Your task to perform on an android device: toggle pop-ups in chrome Image 0: 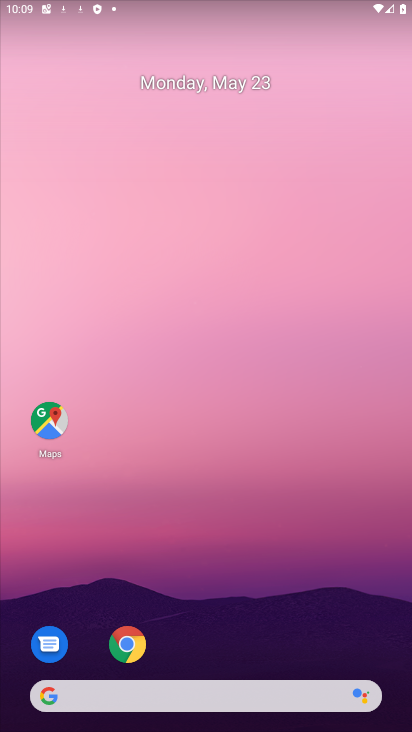
Step 0: press home button
Your task to perform on an android device: toggle pop-ups in chrome Image 1: 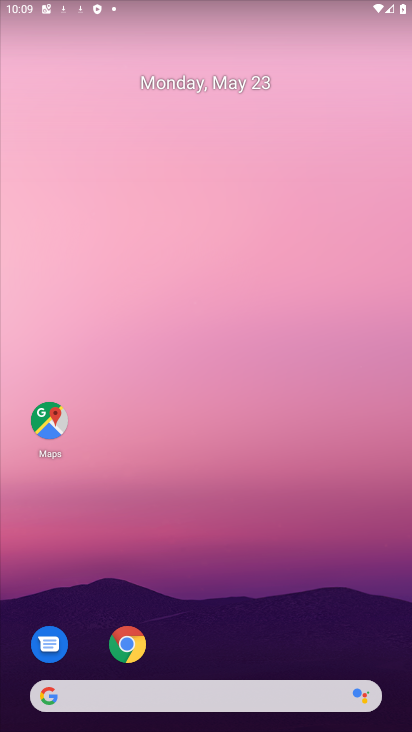
Step 1: drag from (268, 715) to (200, 188)
Your task to perform on an android device: toggle pop-ups in chrome Image 2: 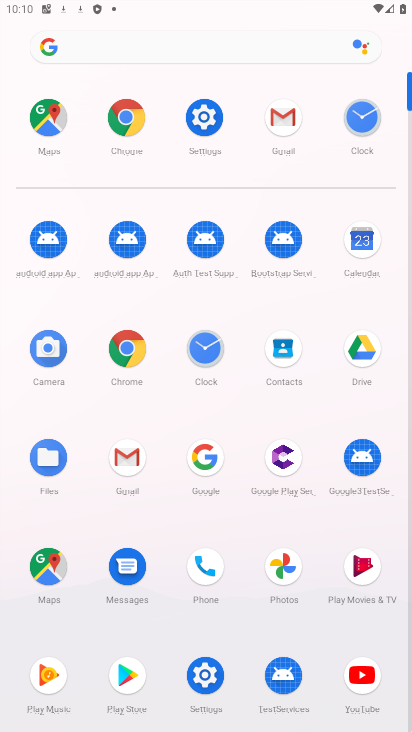
Step 2: click (128, 123)
Your task to perform on an android device: toggle pop-ups in chrome Image 3: 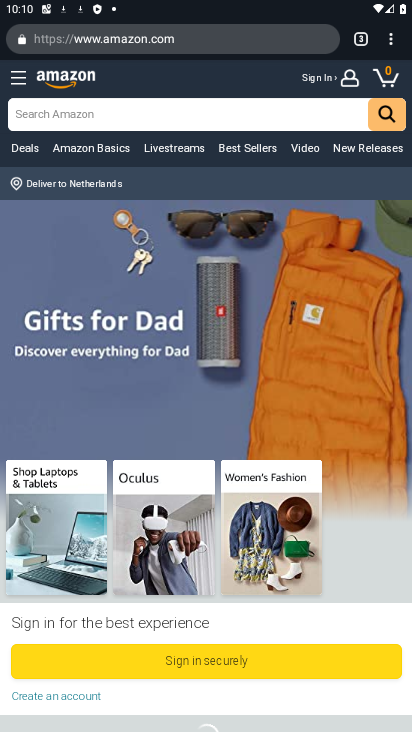
Step 3: click (385, 42)
Your task to perform on an android device: toggle pop-ups in chrome Image 4: 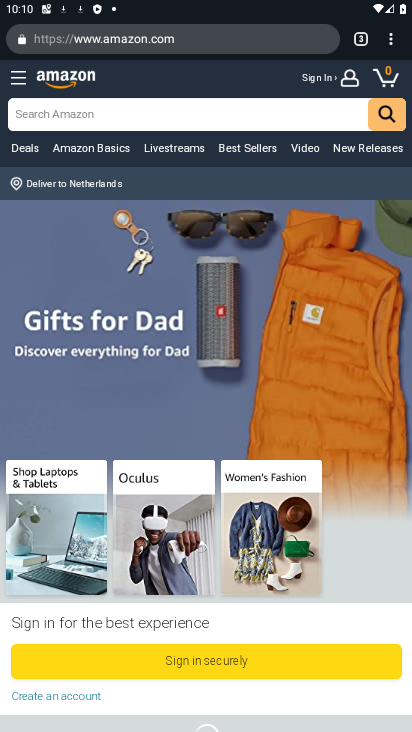
Step 4: click (391, 46)
Your task to perform on an android device: toggle pop-ups in chrome Image 5: 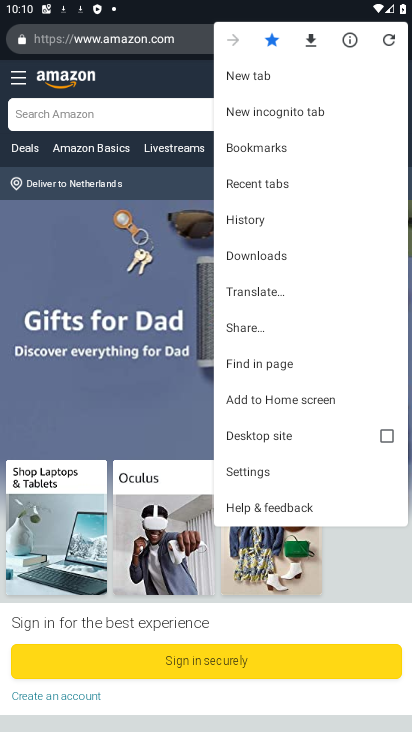
Step 5: click (245, 470)
Your task to perform on an android device: toggle pop-ups in chrome Image 6: 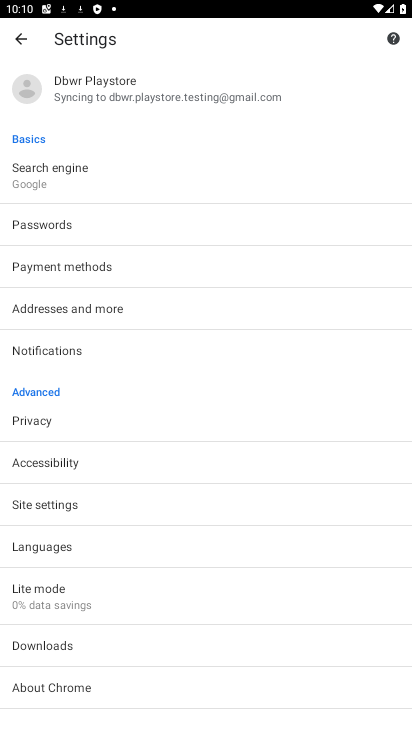
Step 6: click (77, 504)
Your task to perform on an android device: toggle pop-ups in chrome Image 7: 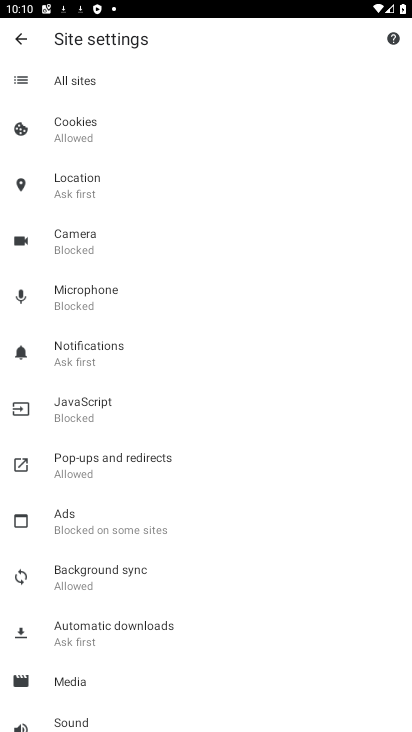
Step 7: click (107, 461)
Your task to perform on an android device: toggle pop-ups in chrome Image 8: 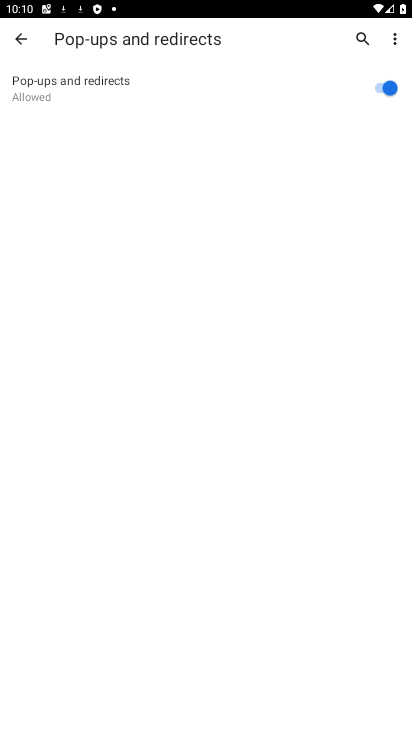
Step 8: task complete